Your task to perform on an android device: toggle javascript in the chrome app Image 0: 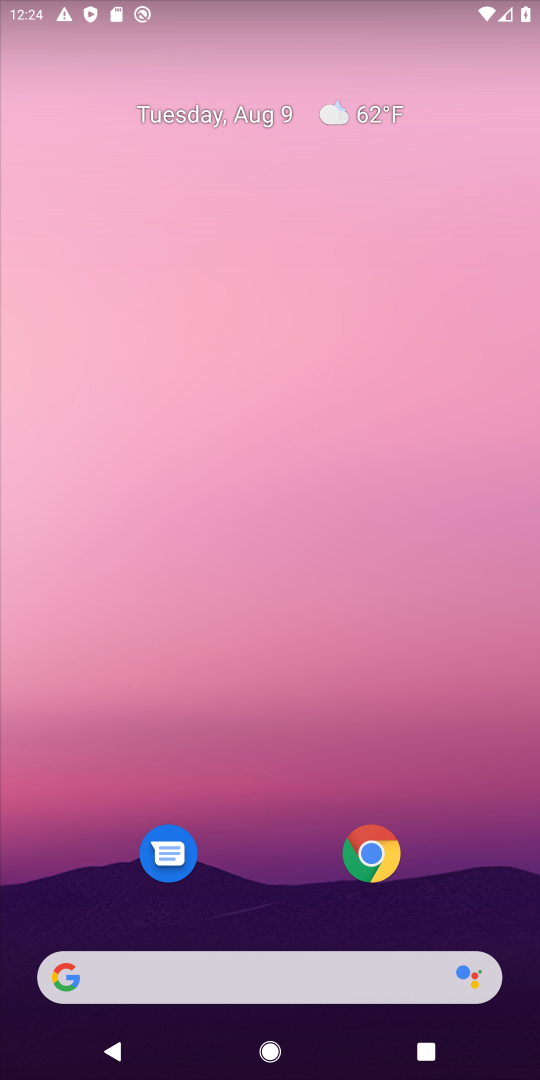
Step 0: press home button
Your task to perform on an android device: toggle javascript in the chrome app Image 1: 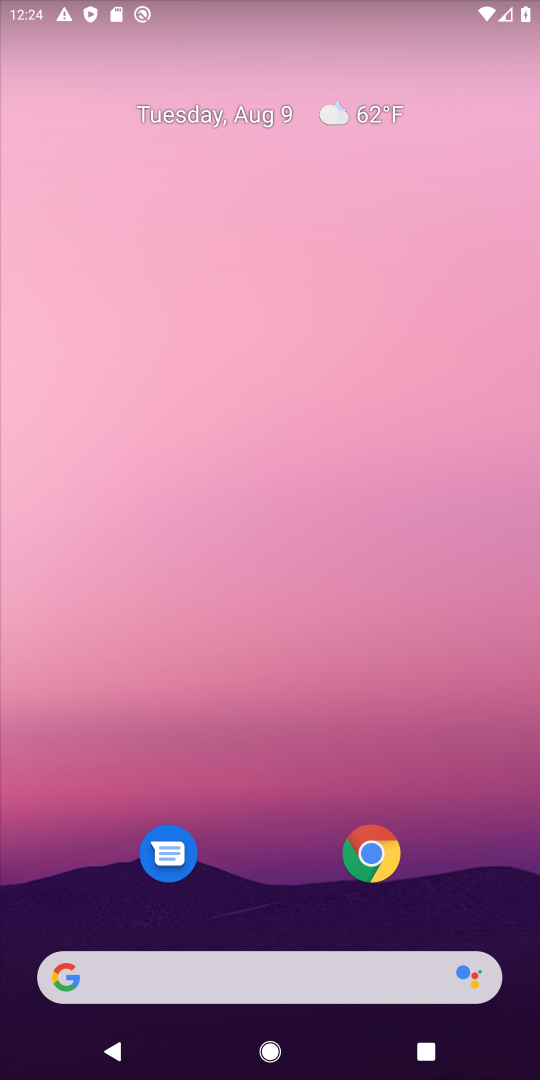
Step 1: drag from (270, 847) to (63, 1066)
Your task to perform on an android device: toggle javascript in the chrome app Image 2: 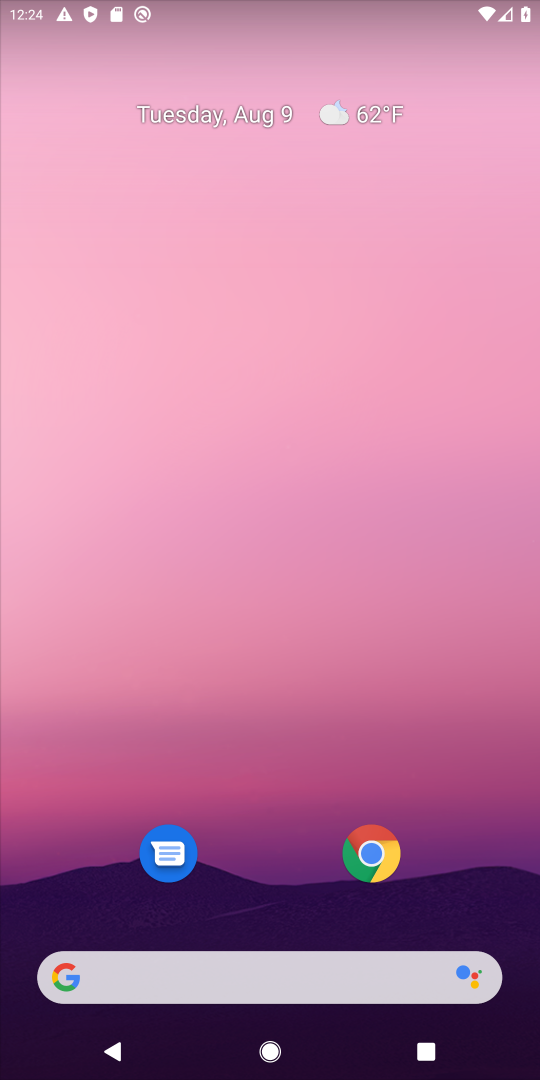
Step 2: click (378, 871)
Your task to perform on an android device: toggle javascript in the chrome app Image 3: 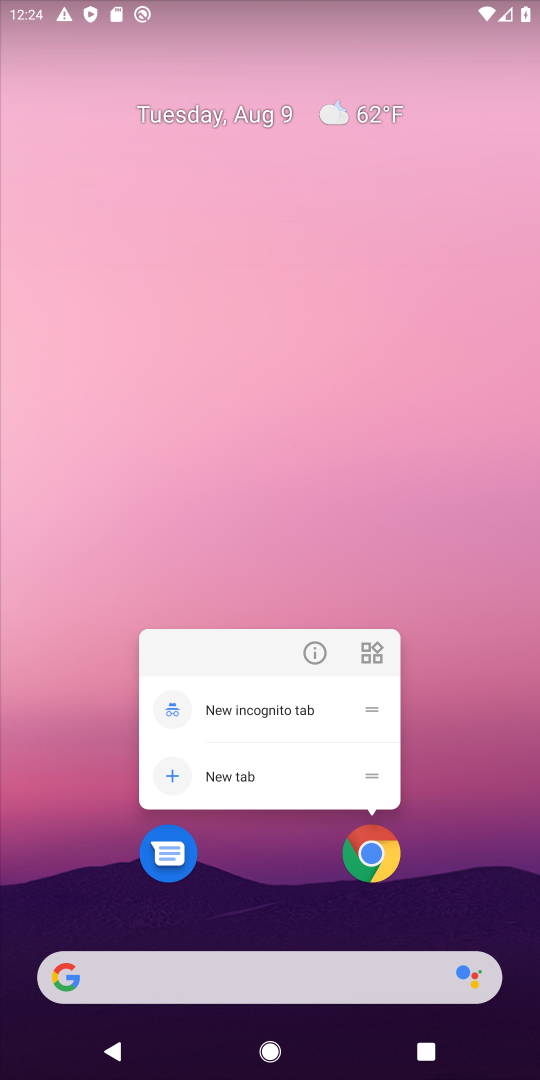
Step 3: click (383, 867)
Your task to perform on an android device: toggle javascript in the chrome app Image 4: 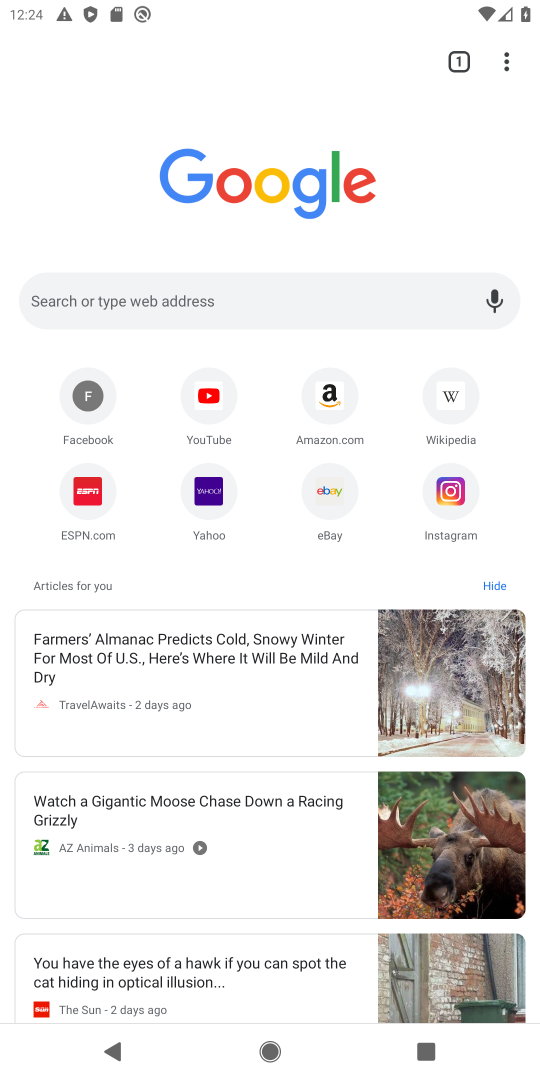
Step 4: drag from (502, 55) to (273, 581)
Your task to perform on an android device: toggle javascript in the chrome app Image 5: 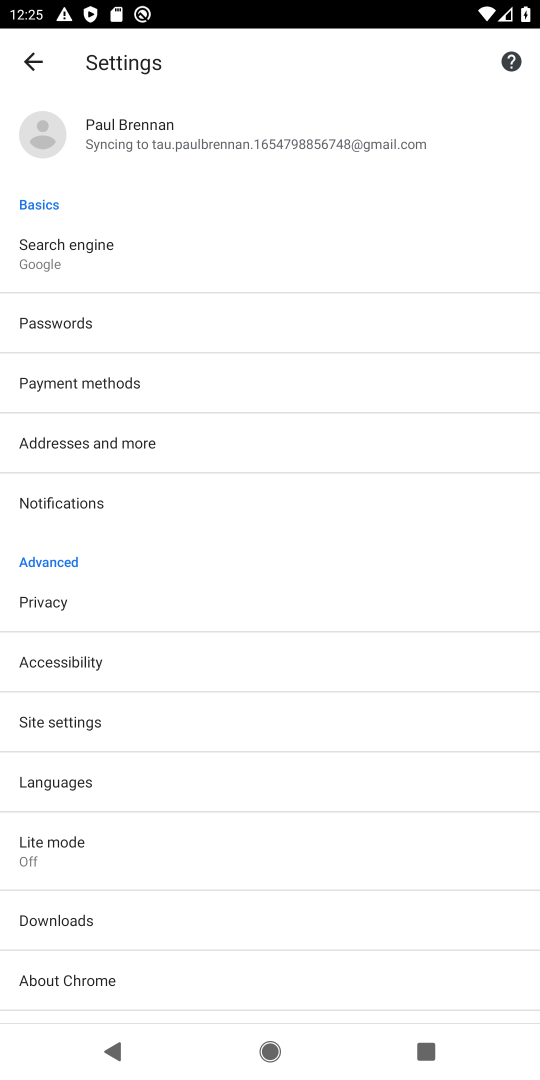
Step 5: click (72, 725)
Your task to perform on an android device: toggle javascript in the chrome app Image 6: 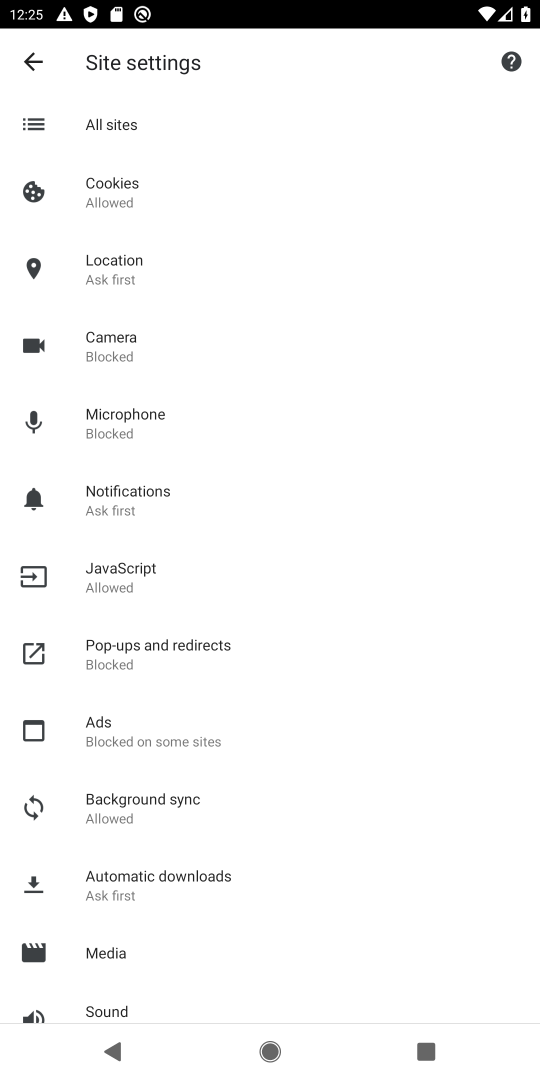
Step 6: click (111, 586)
Your task to perform on an android device: toggle javascript in the chrome app Image 7: 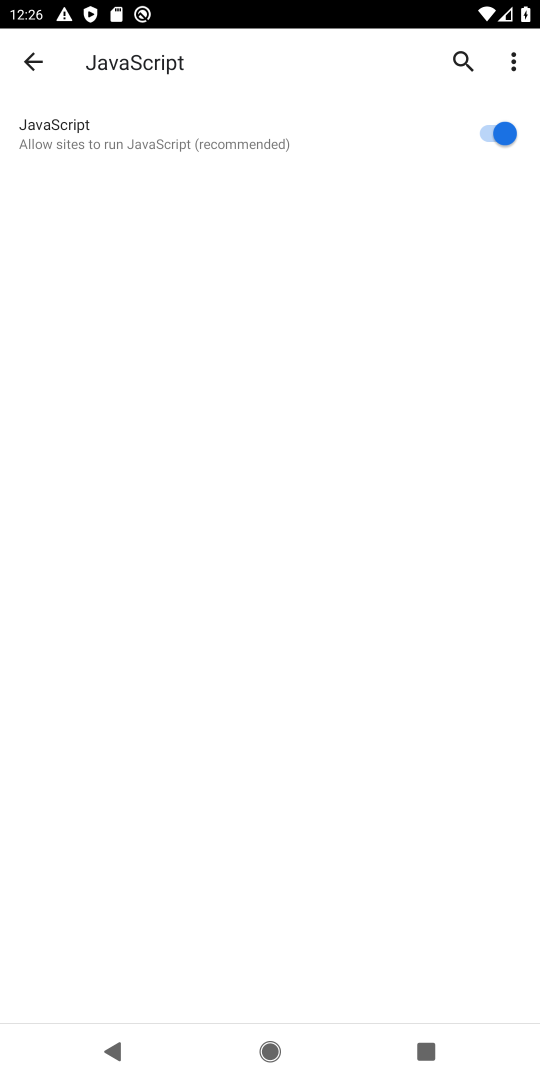
Step 7: click (481, 135)
Your task to perform on an android device: toggle javascript in the chrome app Image 8: 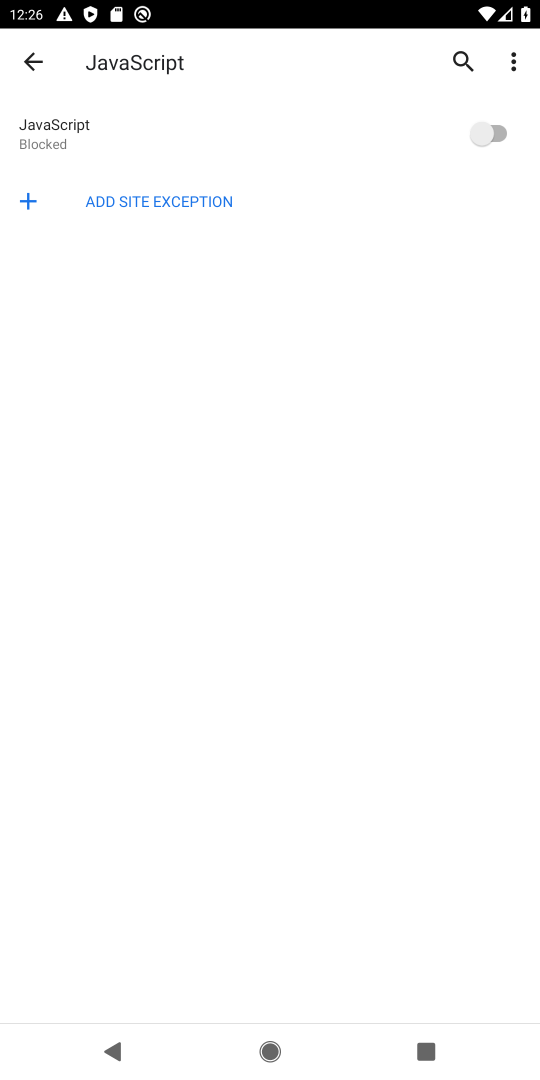
Step 8: task complete